Your task to perform on an android device: Search for vegetarian restaurants on Maps Image 0: 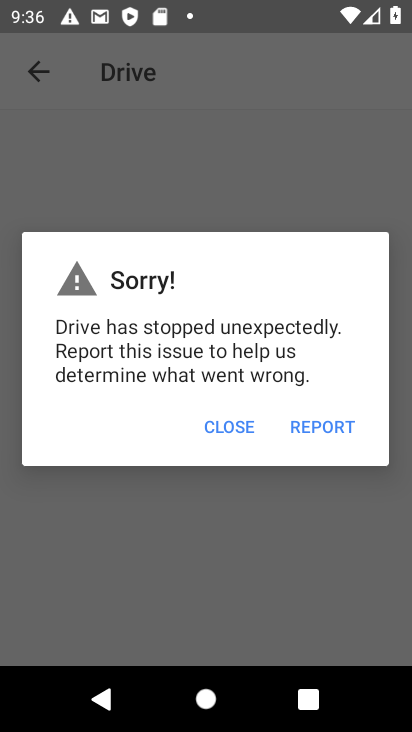
Step 0: press back button
Your task to perform on an android device: Search for vegetarian restaurants on Maps Image 1: 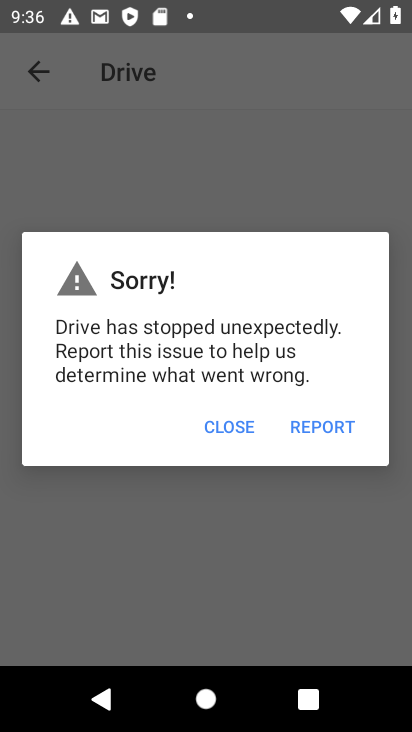
Step 1: press back button
Your task to perform on an android device: Search for vegetarian restaurants on Maps Image 2: 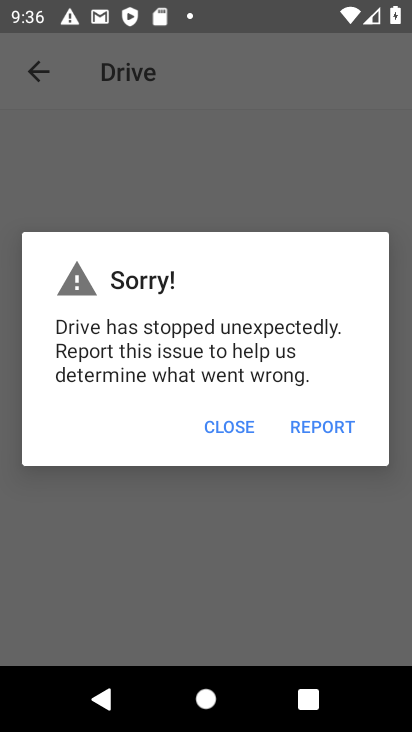
Step 2: press home button
Your task to perform on an android device: Search for vegetarian restaurants on Maps Image 3: 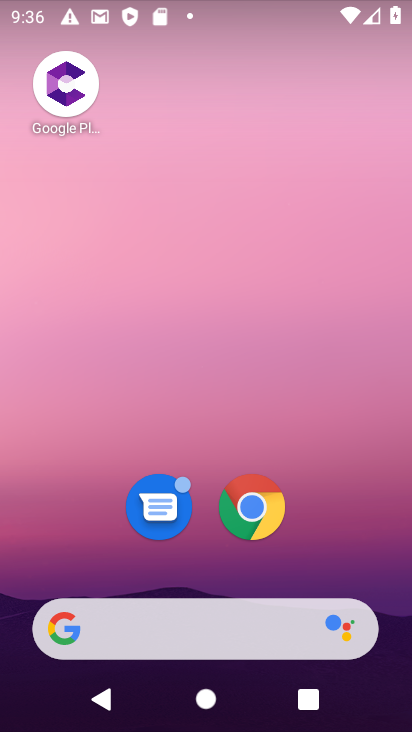
Step 3: drag from (171, 569) to (296, 16)
Your task to perform on an android device: Search for vegetarian restaurants on Maps Image 4: 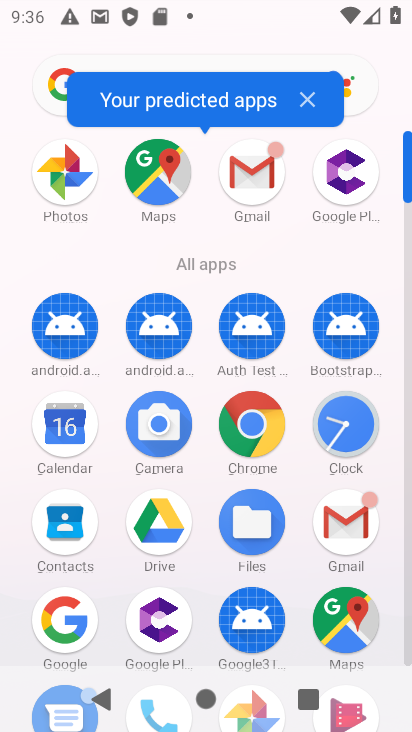
Step 4: click (160, 173)
Your task to perform on an android device: Search for vegetarian restaurants on Maps Image 5: 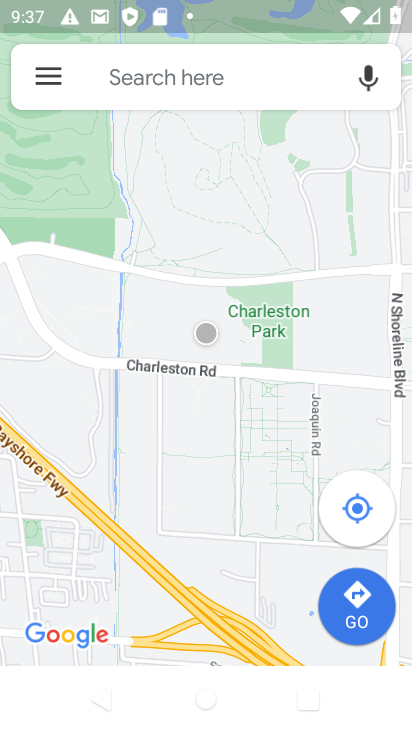
Step 5: click (178, 90)
Your task to perform on an android device: Search for vegetarian restaurants on Maps Image 6: 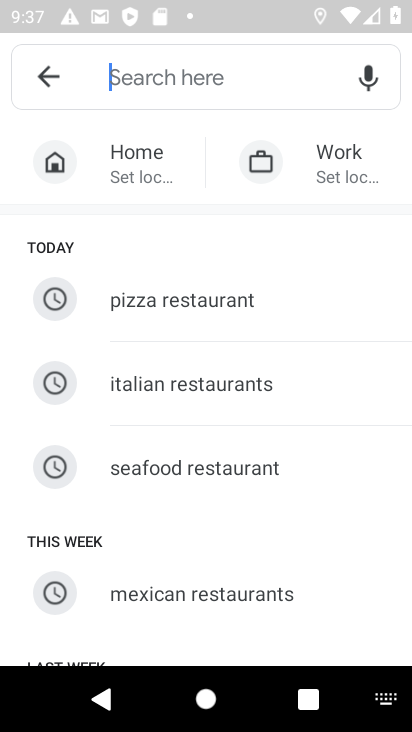
Step 6: drag from (194, 600) to (256, 154)
Your task to perform on an android device: Search for vegetarian restaurants on Maps Image 7: 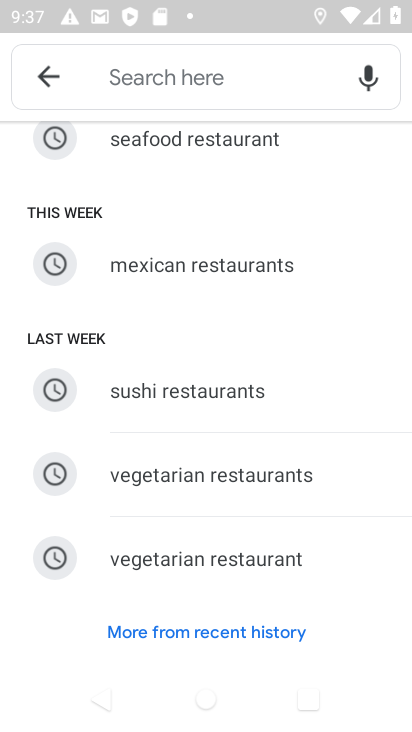
Step 7: click (148, 491)
Your task to perform on an android device: Search for vegetarian restaurants on Maps Image 8: 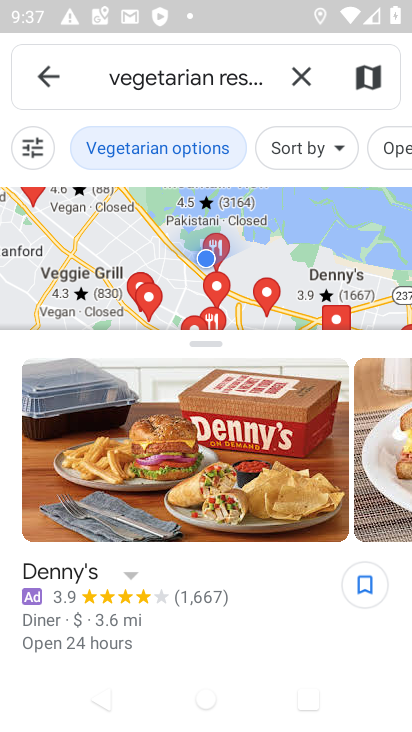
Step 8: task complete